Your task to perform on an android device: toggle sleep mode Image 0: 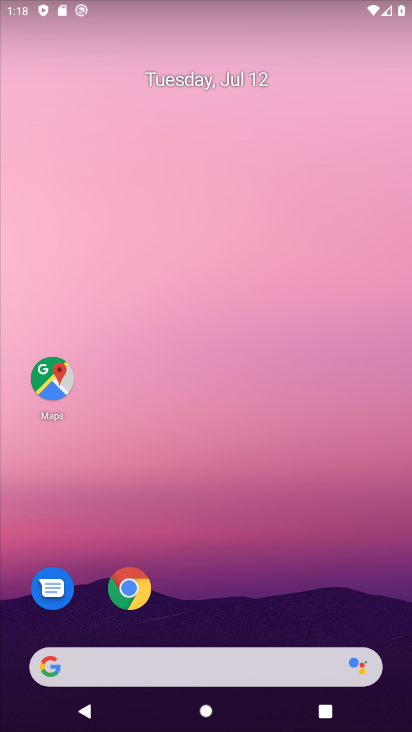
Step 0: drag from (211, 522) to (369, 47)
Your task to perform on an android device: toggle sleep mode Image 1: 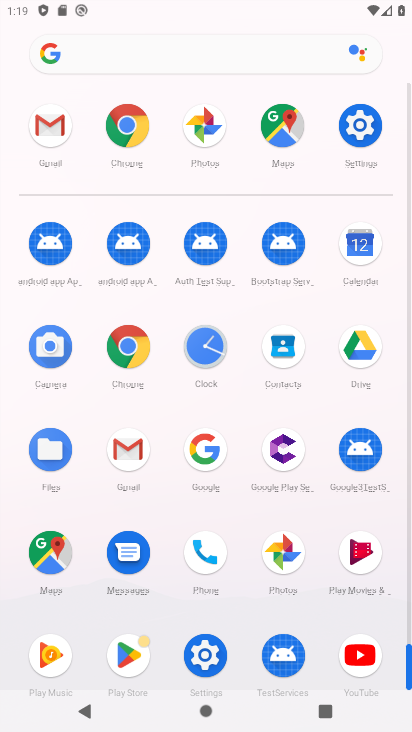
Step 1: click (349, 117)
Your task to perform on an android device: toggle sleep mode Image 2: 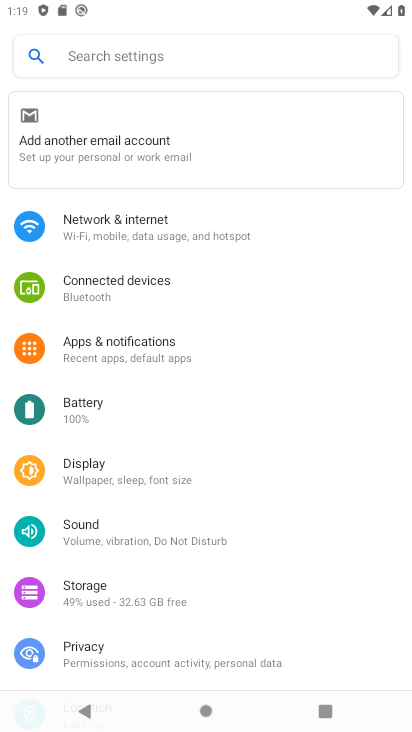
Step 2: click (154, 480)
Your task to perform on an android device: toggle sleep mode Image 3: 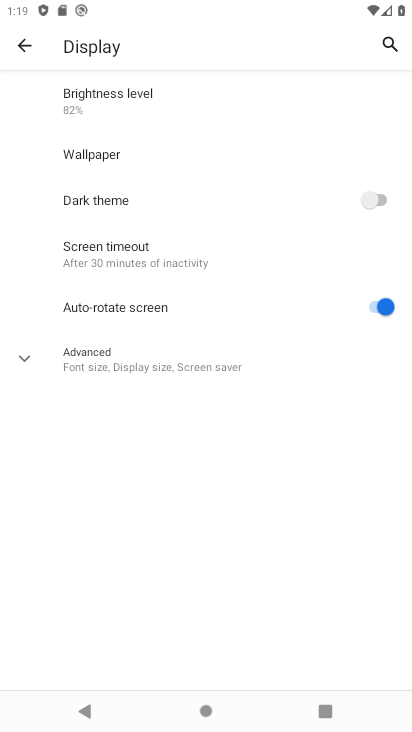
Step 3: click (141, 247)
Your task to perform on an android device: toggle sleep mode Image 4: 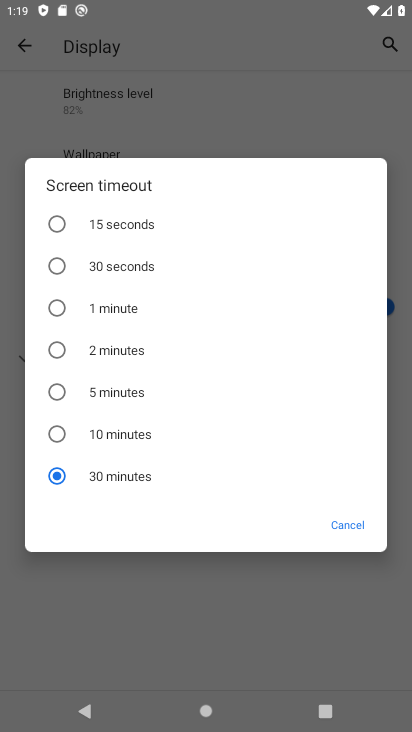
Step 4: click (87, 306)
Your task to perform on an android device: toggle sleep mode Image 5: 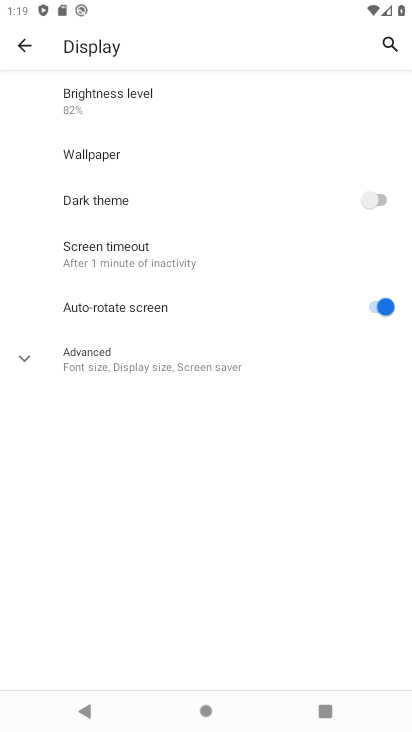
Step 5: task complete